Your task to perform on an android device: turn pop-ups on in chrome Image 0: 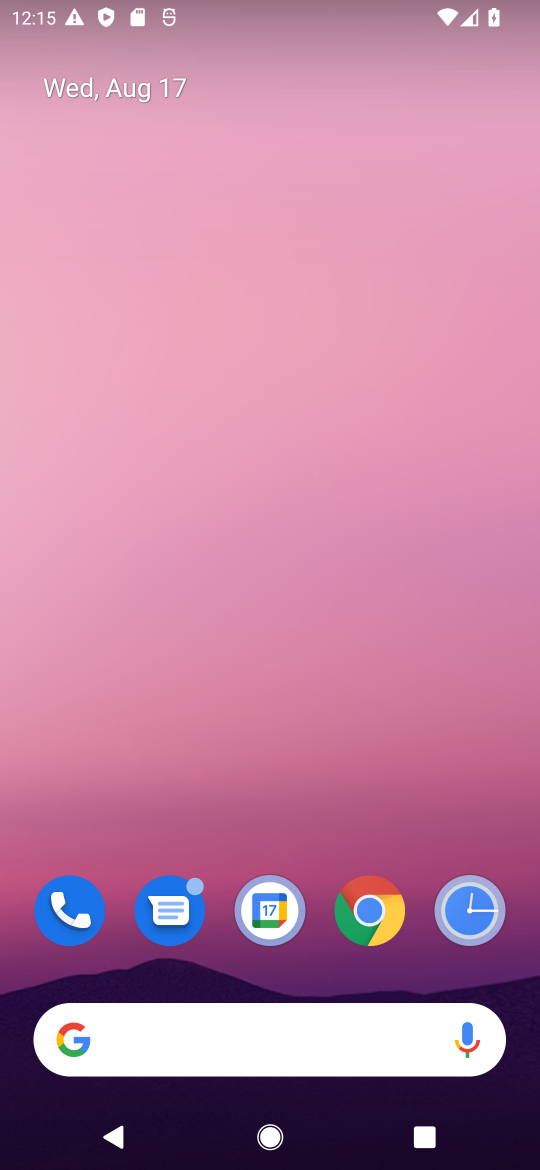
Step 0: click (370, 902)
Your task to perform on an android device: turn pop-ups on in chrome Image 1: 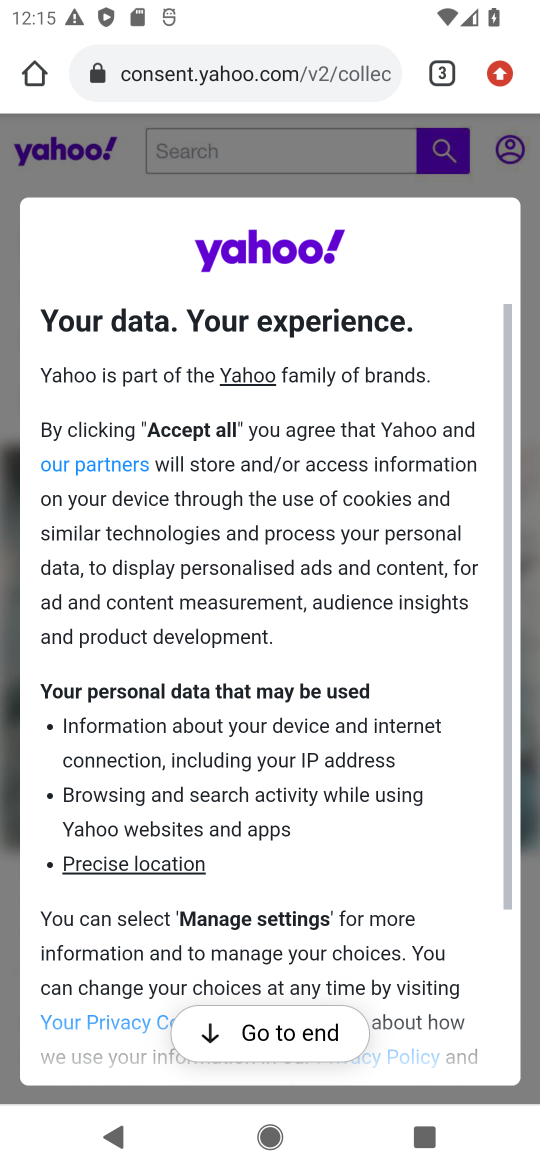
Step 1: drag from (507, 69) to (280, 939)
Your task to perform on an android device: turn pop-ups on in chrome Image 2: 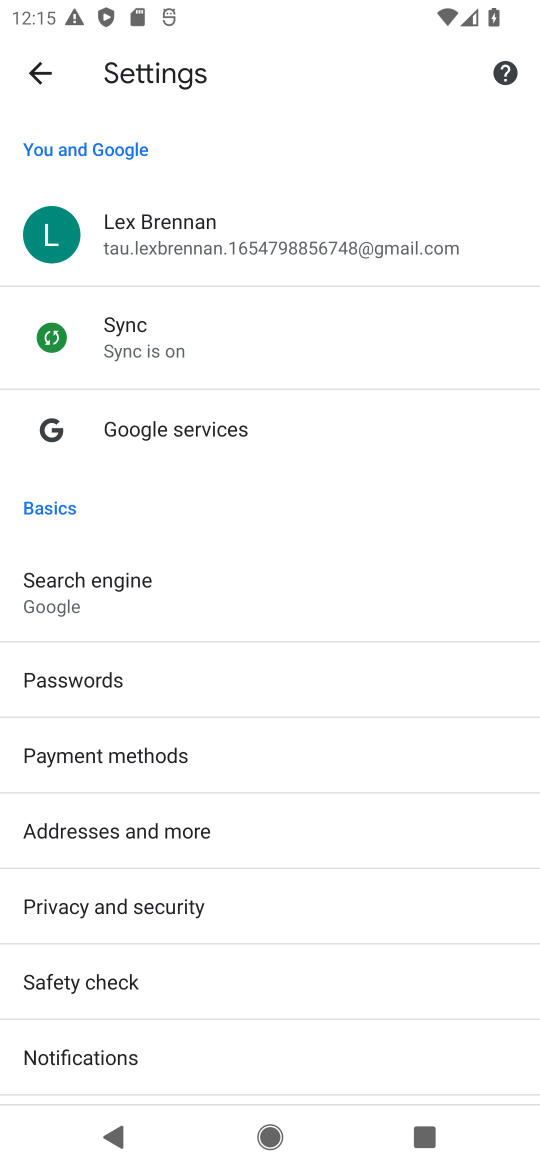
Step 2: drag from (181, 1007) to (386, 182)
Your task to perform on an android device: turn pop-ups on in chrome Image 3: 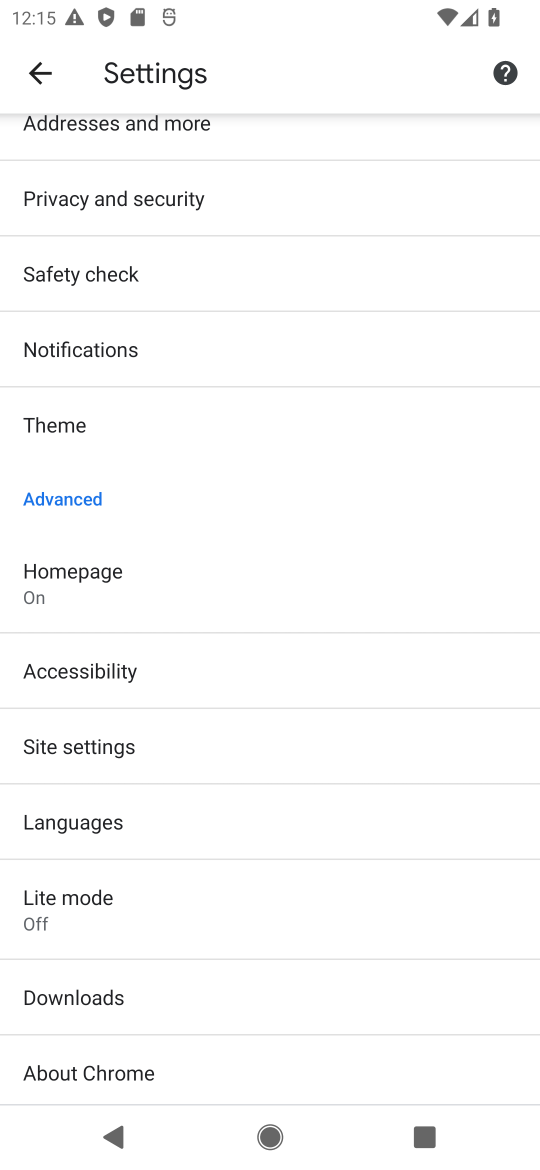
Step 3: click (103, 744)
Your task to perform on an android device: turn pop-ups on in chrome Image 4: 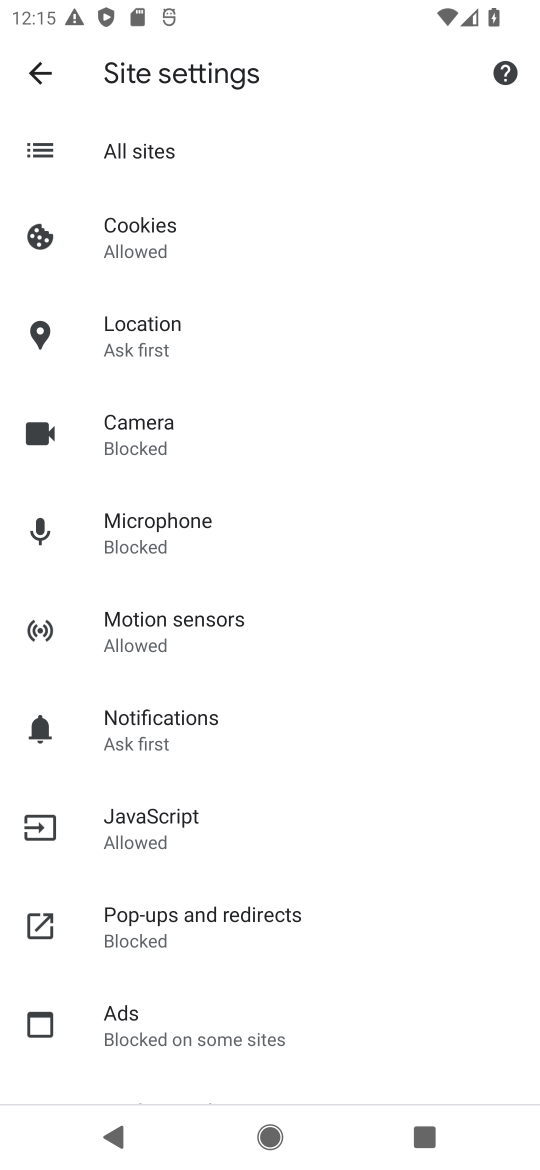
Step 4: click (178, 923)
Your task to perform on an android device: turn pop-ups on in chrome Image 5: 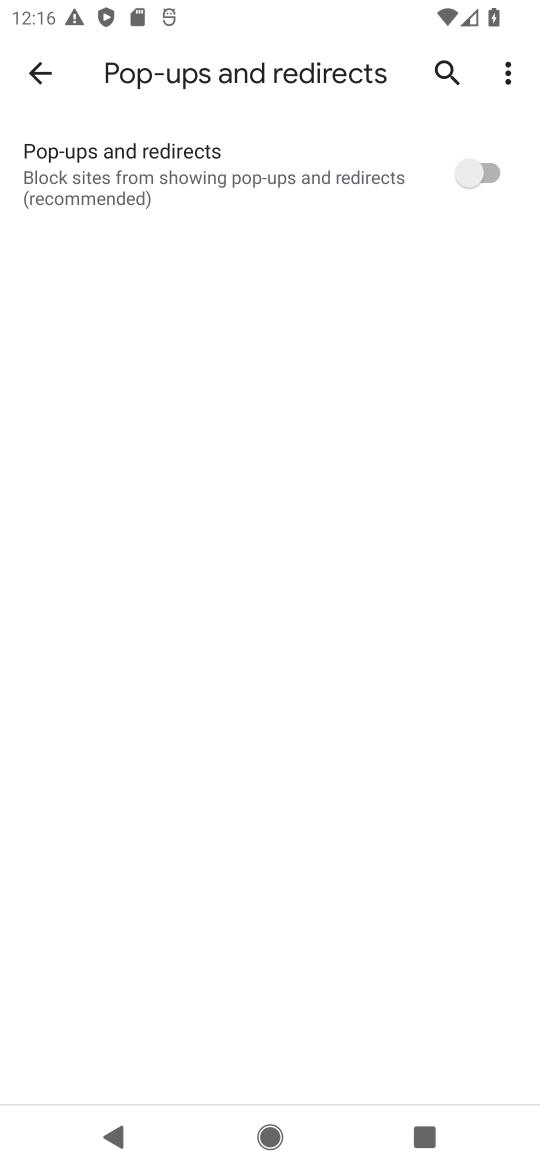
Step 5: click (473, 168)
Your task to perform on an android device: turn pop-ups on in chrome Image 6: 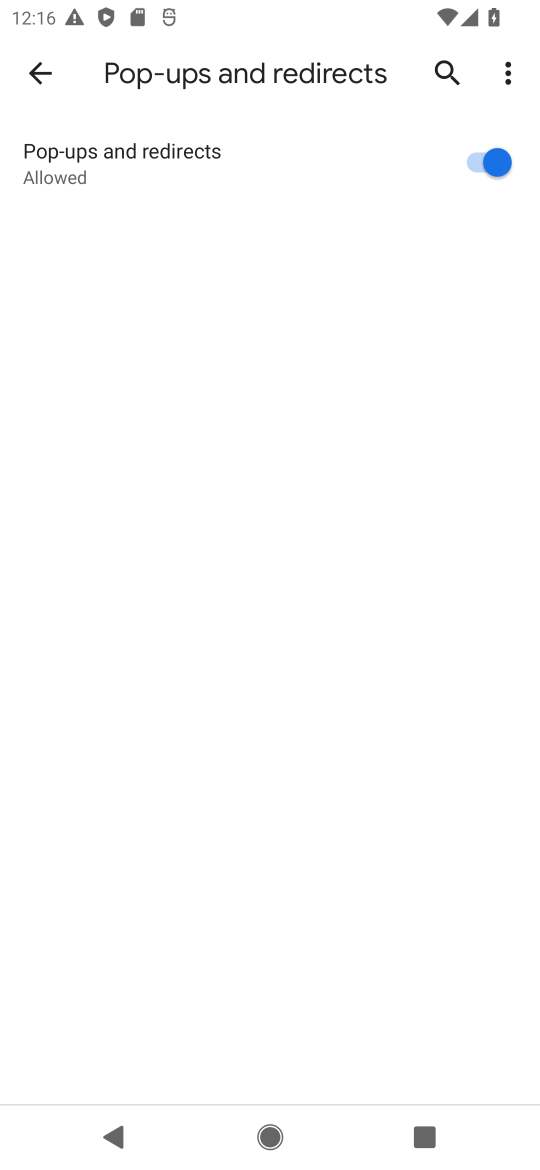
Step 6: task complete